Your task to perform on an android device: Open Wikipedia Image 0: 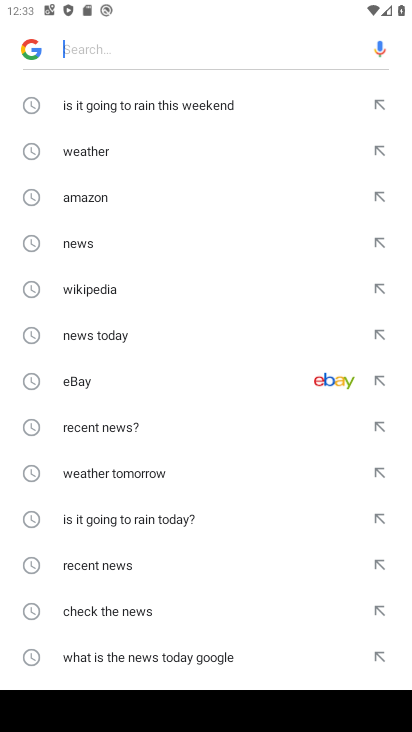
Step 0: press home button
Your task to perform on an android device: Open Wikipedia Image 1: 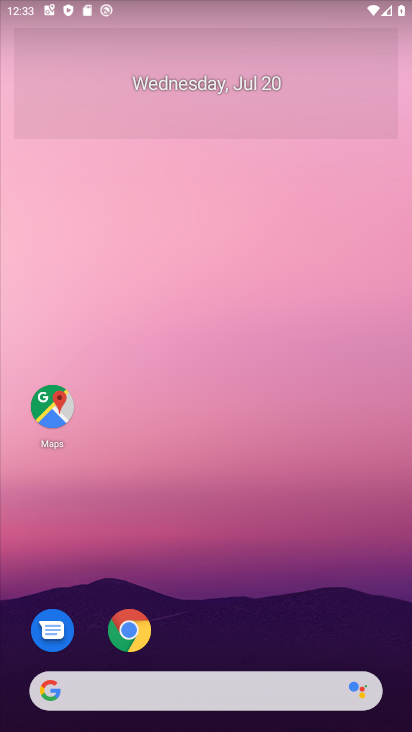
Step 1: click (44, 690)
Your task to perform on an android device: Open Wikipedia Image 2: 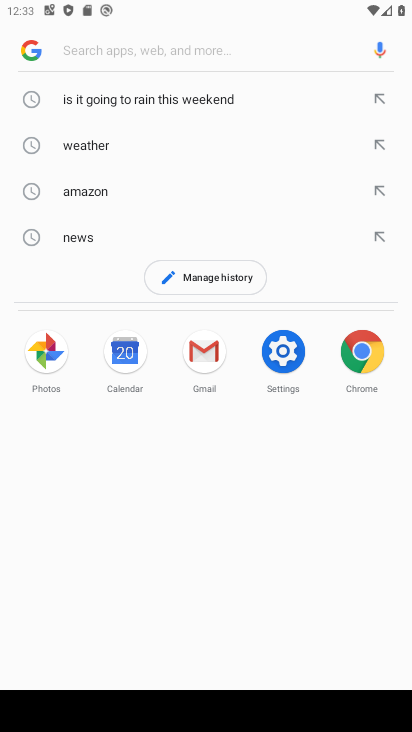
Step 2: type "Wikipedia"
Your task to perform on an android device: Open Wikipedia Image 3: 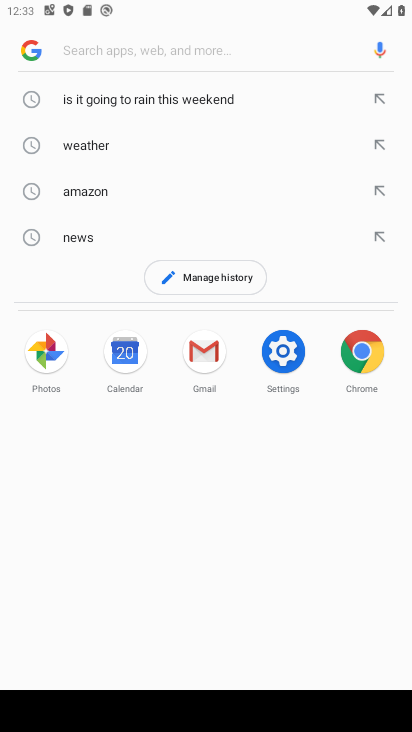
Step 3: click (69, 53)
Your task to perform on an android device: Open Wikipedia Image 4: 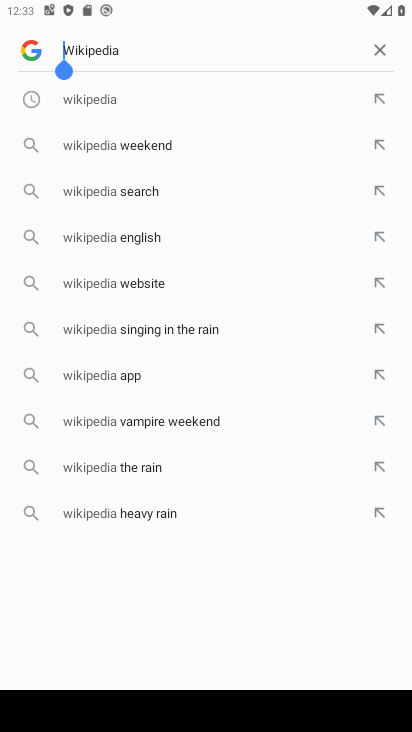
Step 4: press enter
Your task to perform on an android device: Open Wikipedia Image 5: 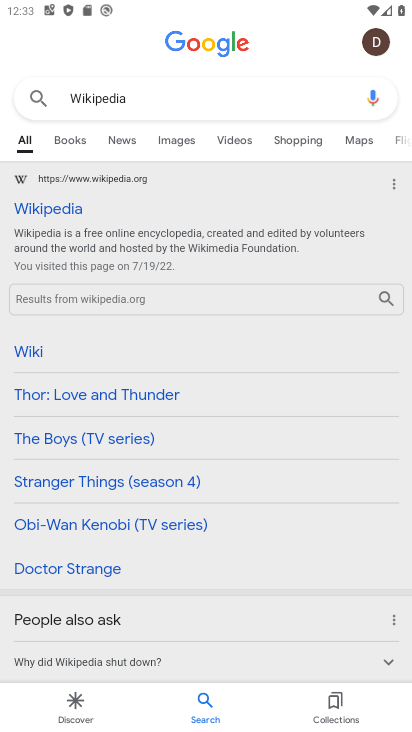
Step 5: click (51, 206)
Your task to perform on an android device: Open Wikipedia Image 6: 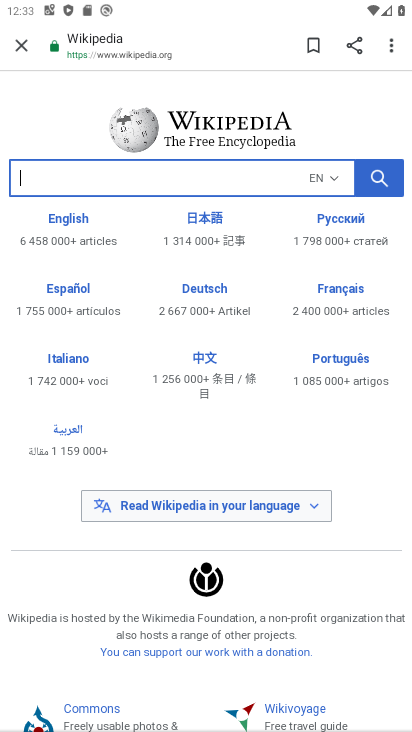
Step 6: task complete